Your task to perform on an android device: open chrome and create a bookmark for the current page Image 0: 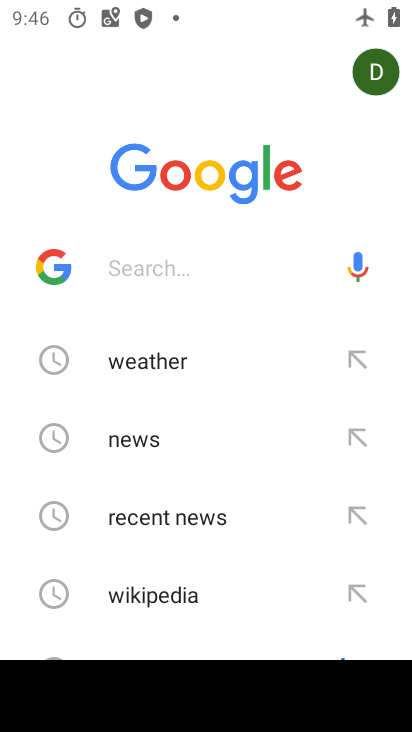
Step 0: press home button
Your task to perform on an android device: open chrome and create a bookmark for the current page Image 1: 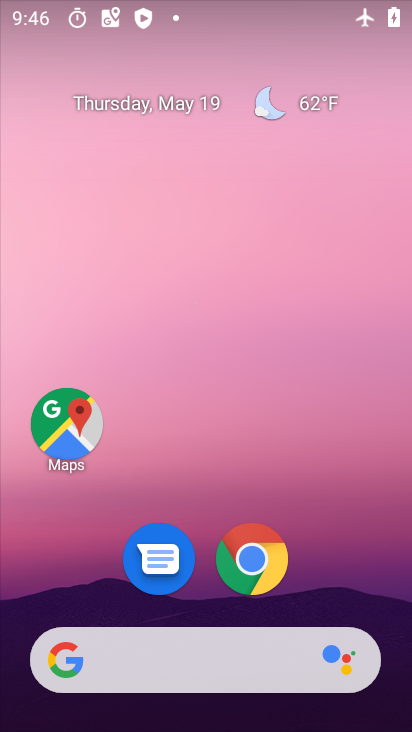
Step 1: click (267, 559)
Your task to perform on an android device: open chrome and create a bookmark for the current page Image 2: 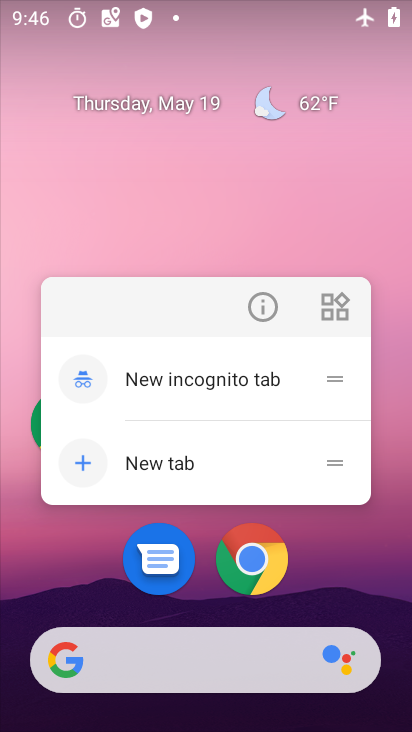
Step 2: click (266, 558)
Your task to perform on an android device: open chrome and create a bookmark for the current page Image 3: 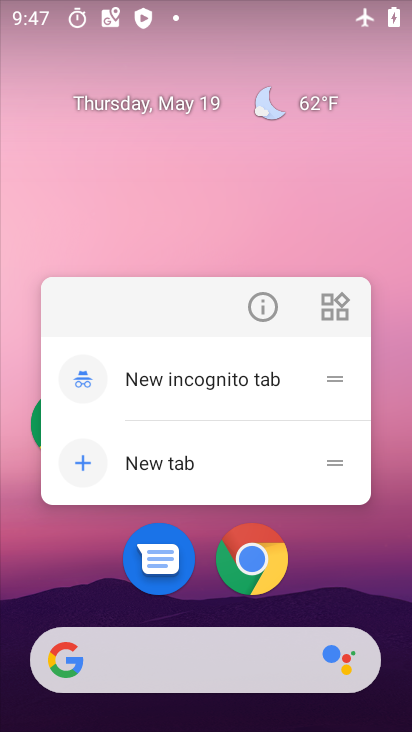
Step 3: click (245, 569)
Your task to perform on an android device: open chrome and create a bookmark for the current page Image 4: 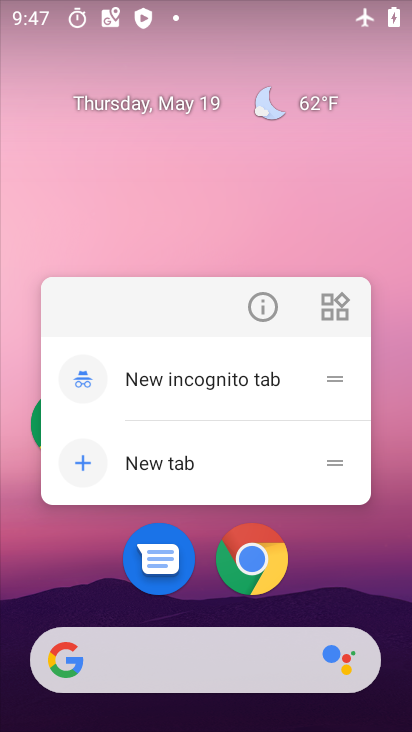
Step 4: click (245, 569)
Your task to perform on an android device: open chrome and create a bookmark for the current page Image 5: 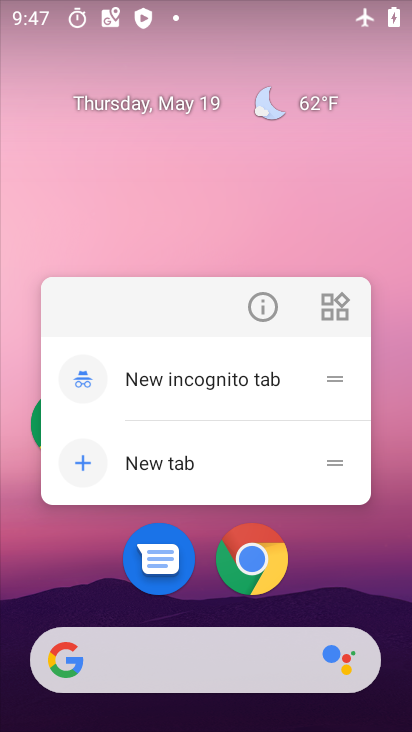
Step 5: click (252, 562)
Your task to perform on an android device: open chrome and create a bookmark for the current page Image 6: 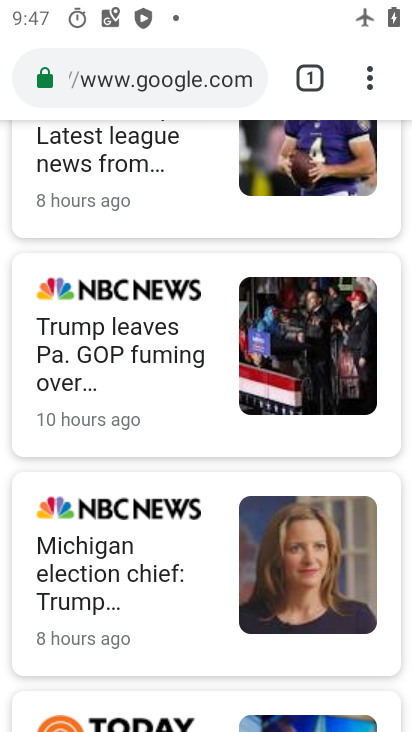
Step 6: task complete